Your task to perform on an android device: Go to wifi settings Image 0: 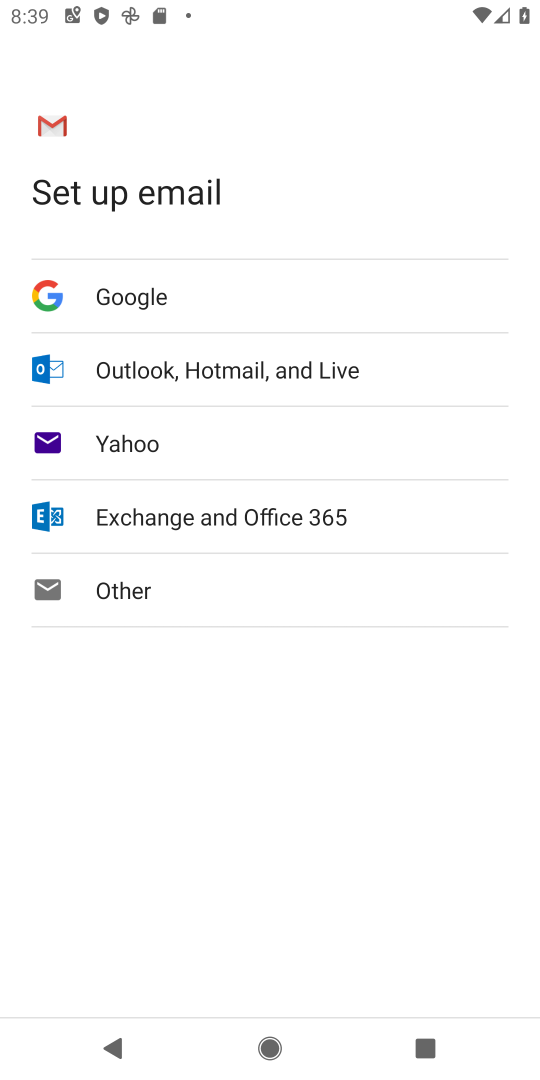
Step 0: press home button
Your task to perform on an android device: Go to wifi settings Image 1: 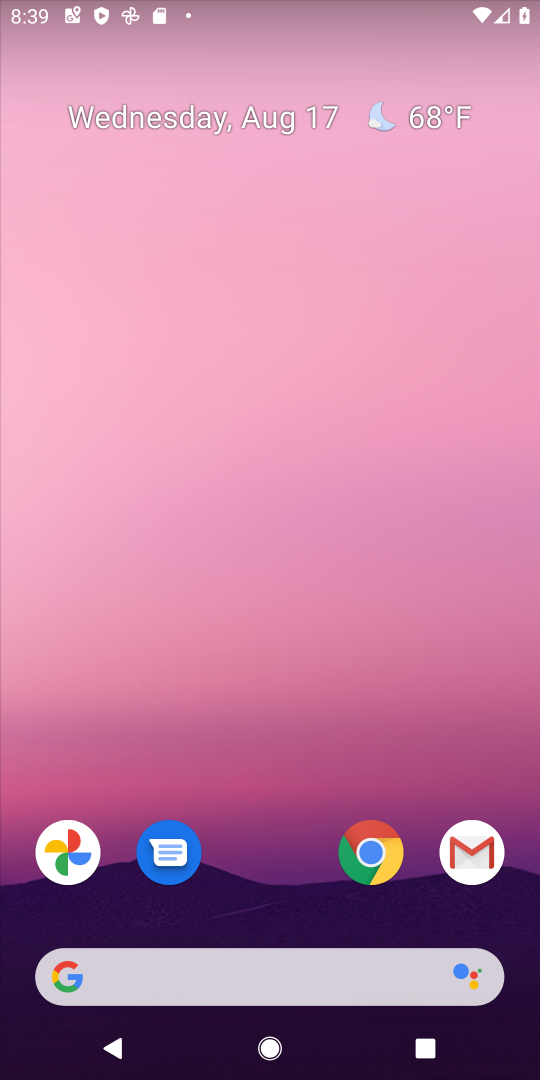
Step 1: drag from (272, 908) to (222, 226)
Your task to perform on an android device: Go to wifi settings Image 2: 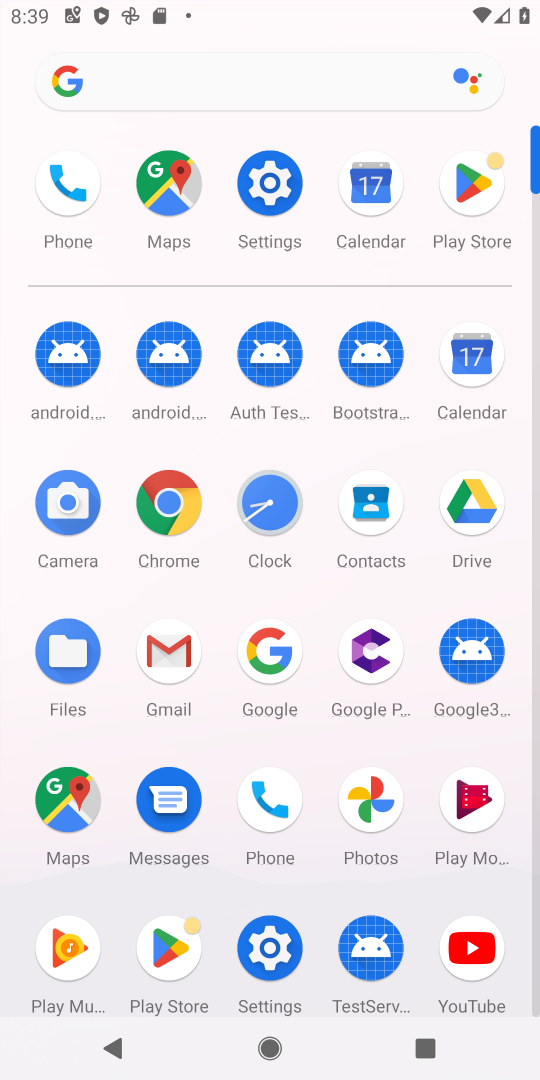
Step 2: click (270, 183)
Your task to perform on an android device: Go to wifi settings Image 3: 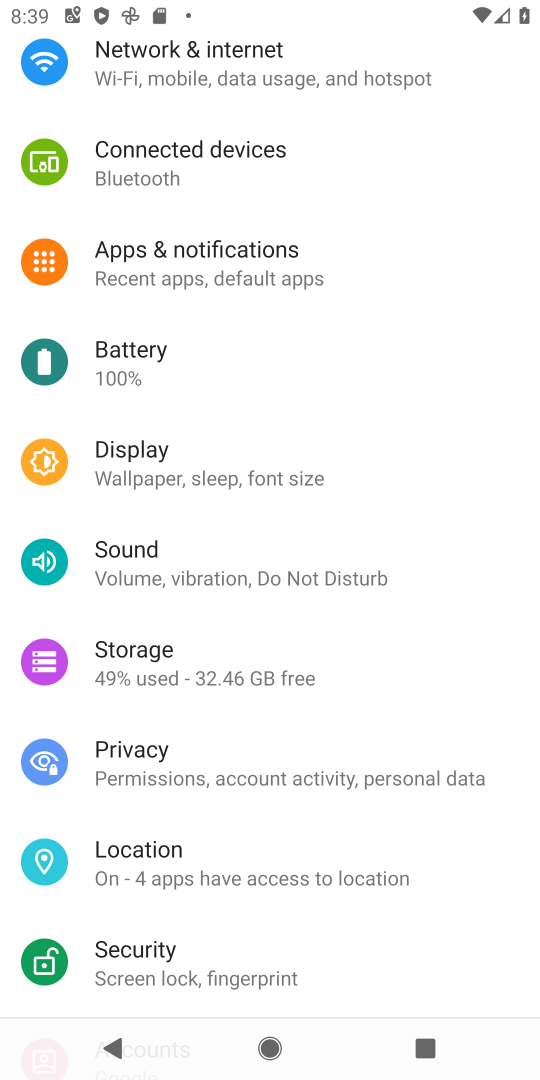
Step 3: click (205, 48)
Your task to perform on an android device: Go to wifi settings Image 4: 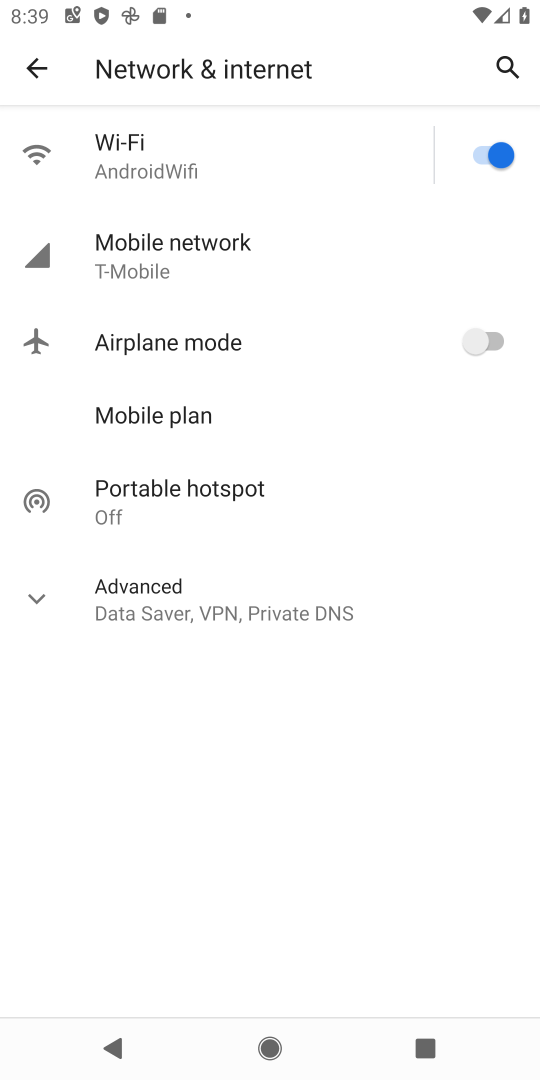
Step 4: click (116, 146)
Your task to perform on an android device: Go to wifi settings Image 5: 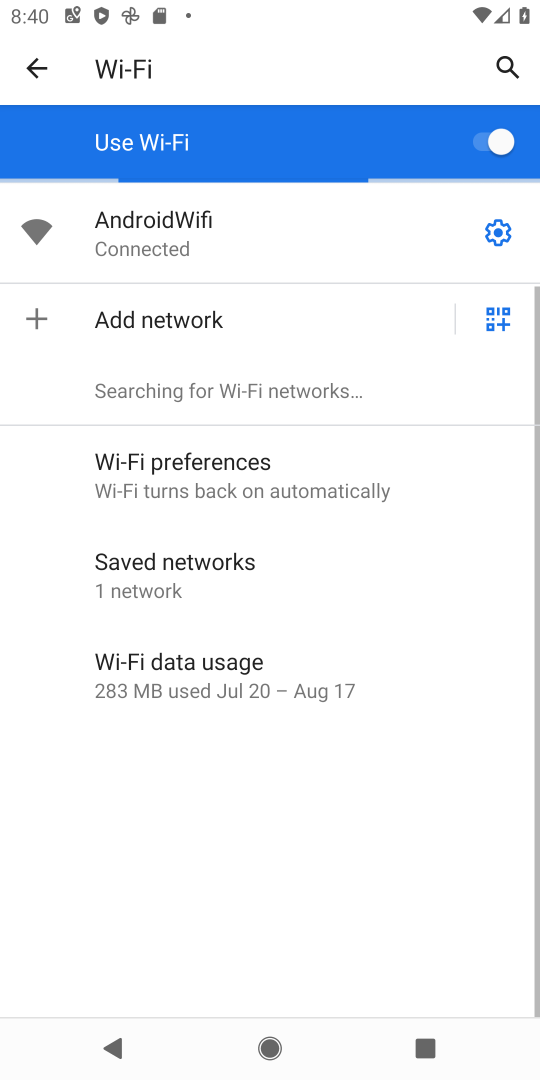
Step 5: task complete